Your task to perform on an android device: toggle sleep mode Image 0: 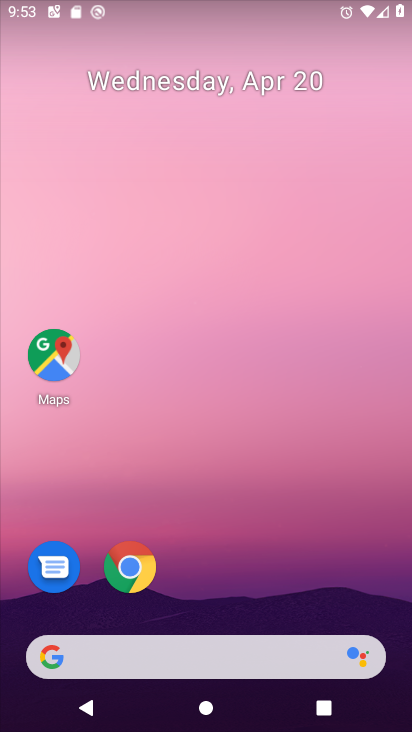
Step 0: drag from (357, 567) to (346, 254)
Your task to perform on an android device: toggle sleep mode Image 1: 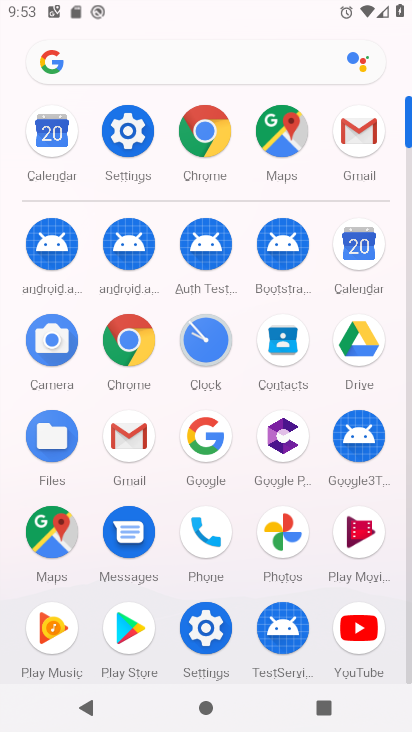
Step 1: click (126, 136)
Your task to perform on an android device: toggle sleep mode Image 2: 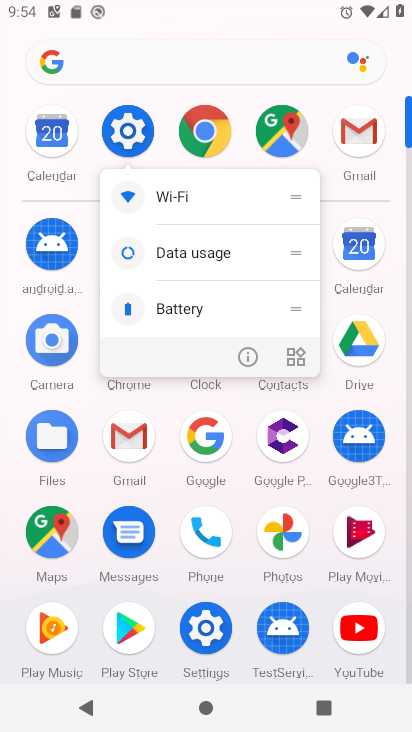
Step 2: click (126, 136)
Your task to perform on an android device: toggle sleep mode Image 3: 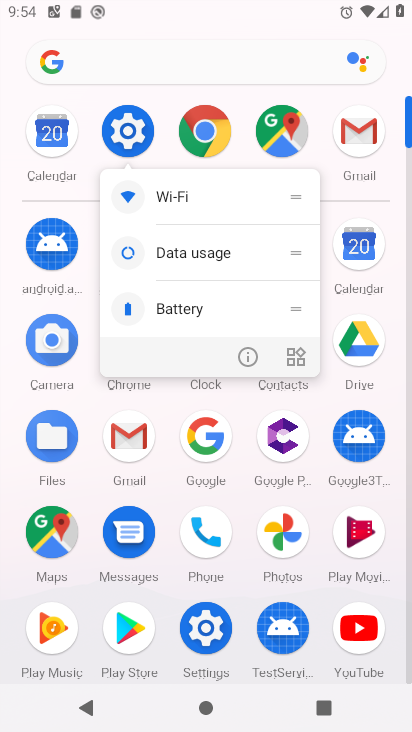
Step 3: click (126, 136)
Your task to perform on an android device: toggle sleep mode Image 4: 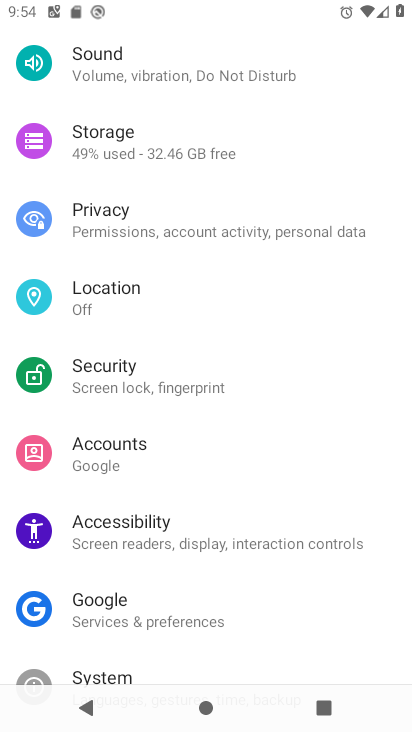
Step 4: drag from (350, 308) to (358, 412)
Your task to perform on an android device: toggle sleep mode Image 5: 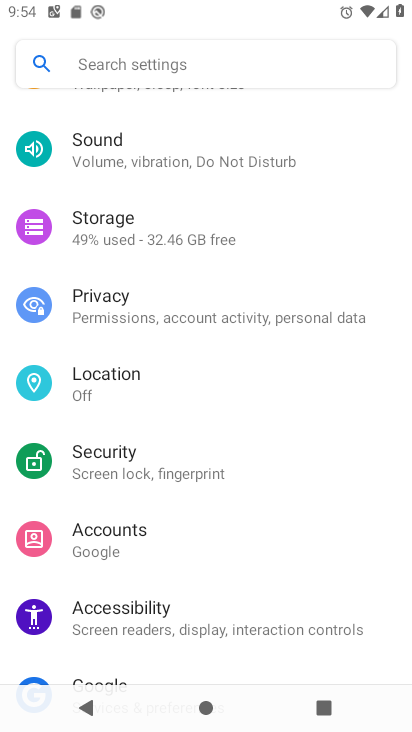
Step 5: drag from (371, 237) to (359, 376)
Your task to perform on an android device: toggle sleep mode Image 6: 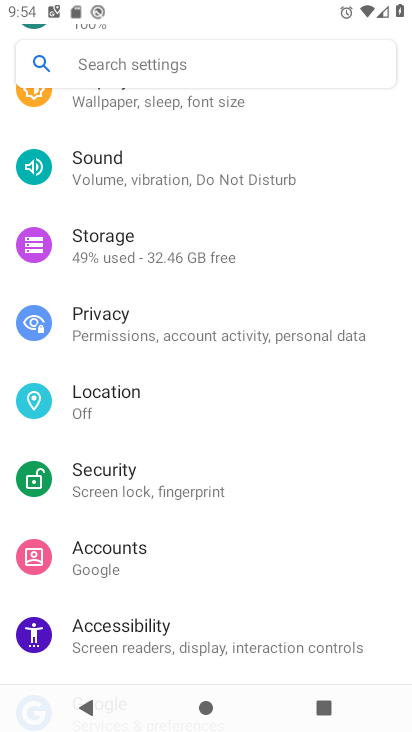
Step 6: drag from (358, 237) to (367, 442)
Your task to perform on an android device: toggle sleep mode Image 7: 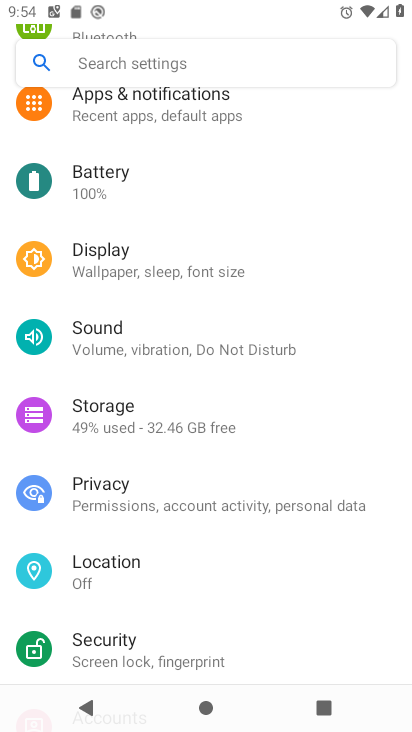
Step 7: click (220, 267)
Your task to perform on an android device: toggle sleep mode Image 8: 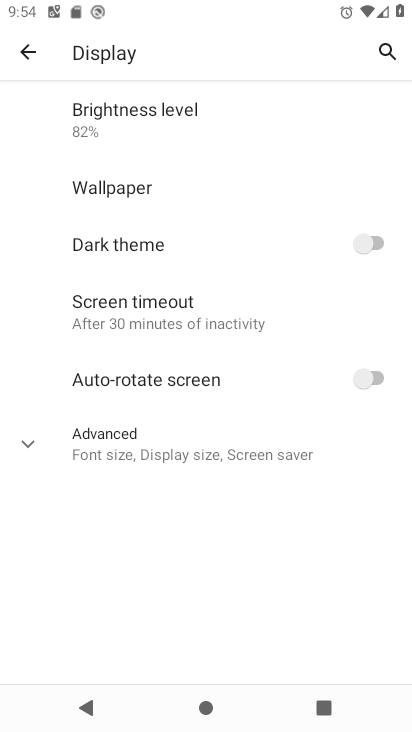
Step 8: click (262, 448)
Your task to perform on an android device: toggle sleep mode Image 9: 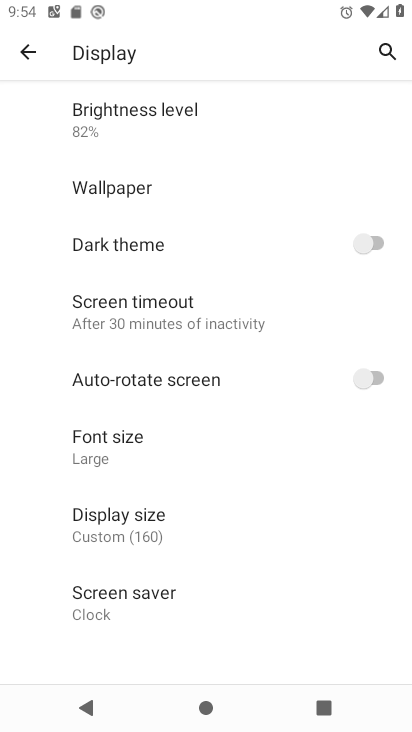
Step 9: task complete